Your task to perform on an android device: Go to Amazon Image 0: 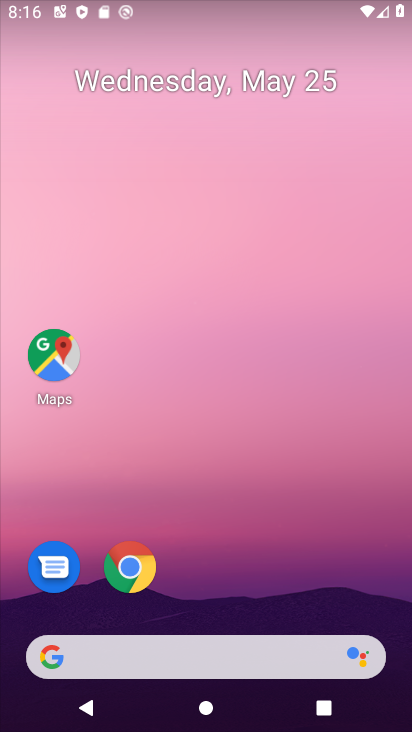
Step 0: click (133, 548)
Your task to perform on an android device: Go to Amazon Image 1: 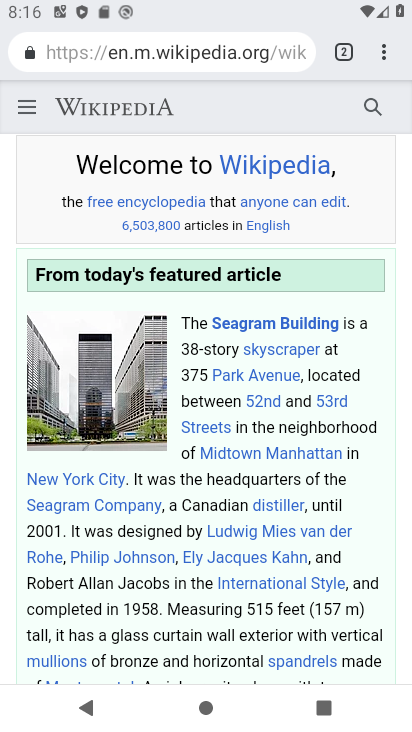
Step 1: click (192, 61)
Your task to perform on an android device: Go to Amazon Image 2: 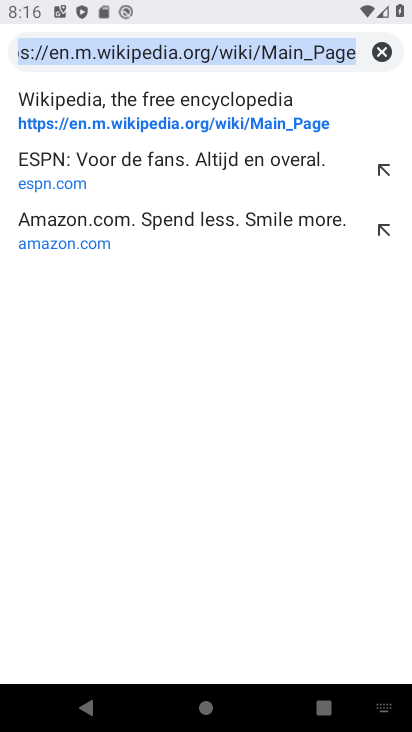
Step 2: type "anazon"
Your task to perform on an android device: Go to Amazon Image 3: 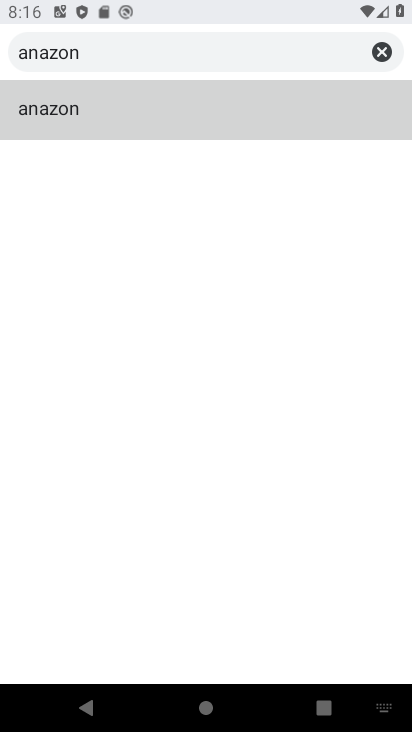
Step 3: click (81, 110)
Your task to perform on an android device: Go to Amazon Image 4: 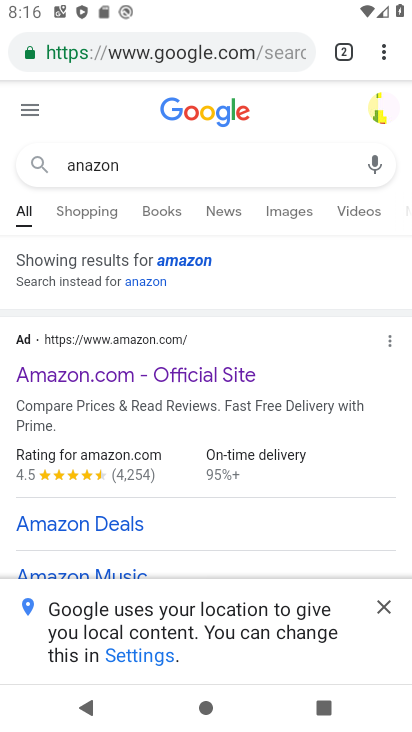
Step 4: click (93, 390)
Your task to perform on an android device: Go to Amazon Image 5: 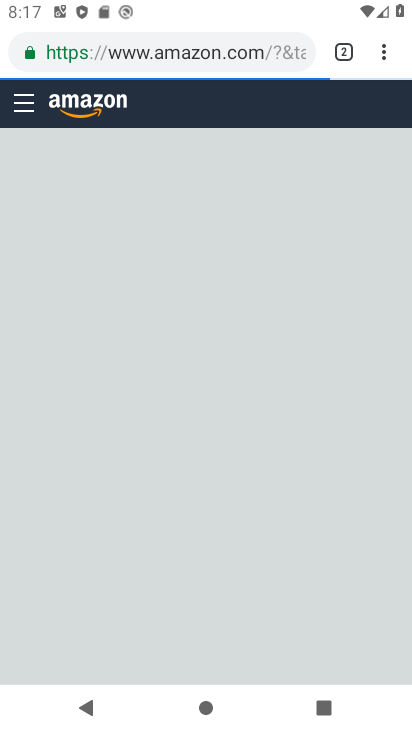
Step 5: task complete